Your task to perform on an android device: move a message to another label in the gmail app Image 0: 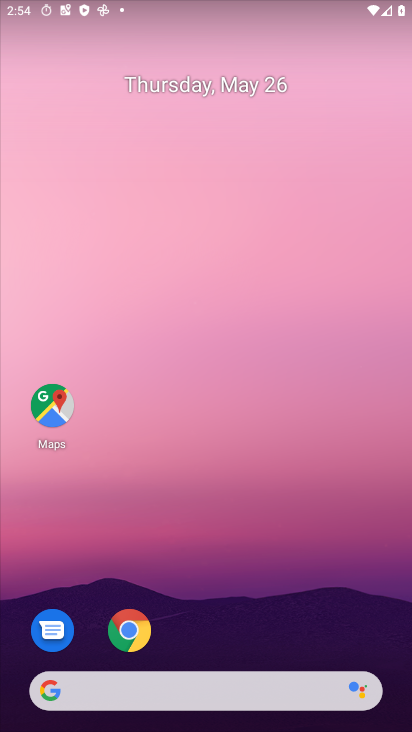
Step 0: drag from (184, 610) to (284, 190)
Your task to perform on an android device: move a message to another label in the gmail app Image 1: 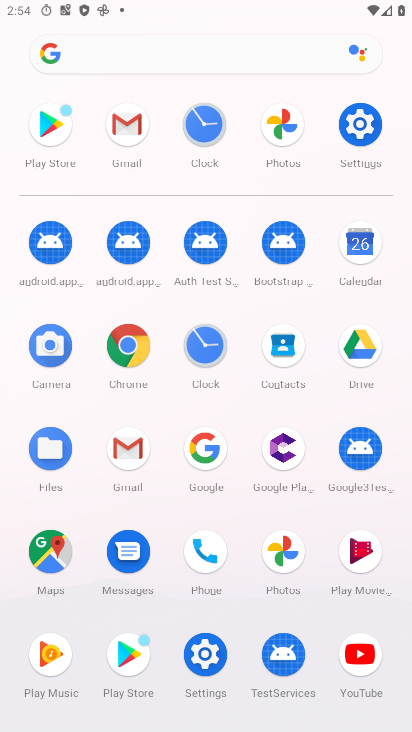
Step 1: click (116, 133)
Your task to perform on an android device: move a message to another label in the gmail app Image 2: 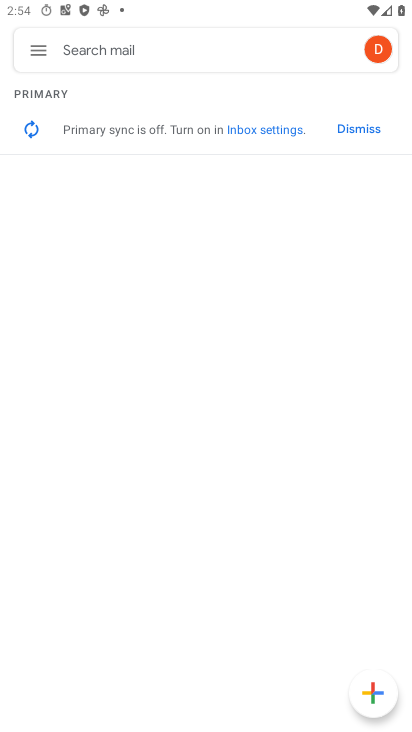
Step 2: click (46, 48)
Your task to perform on an android device: move a message to another label in the gmail app Image 3: 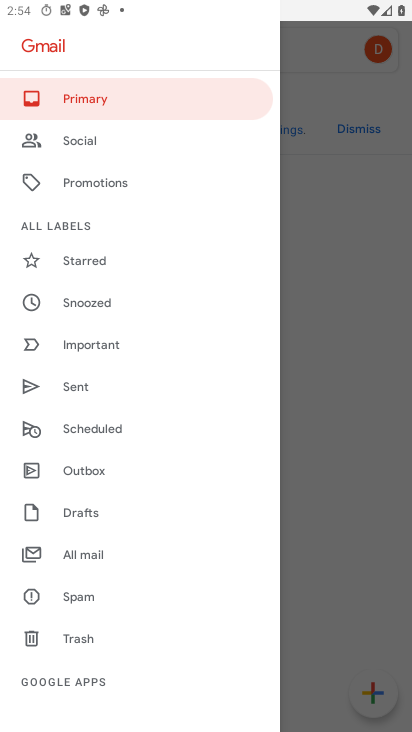
Step 3: click (82, 562)
Your task to perform on an android device: move a message to another label in the gmail app Image 4: 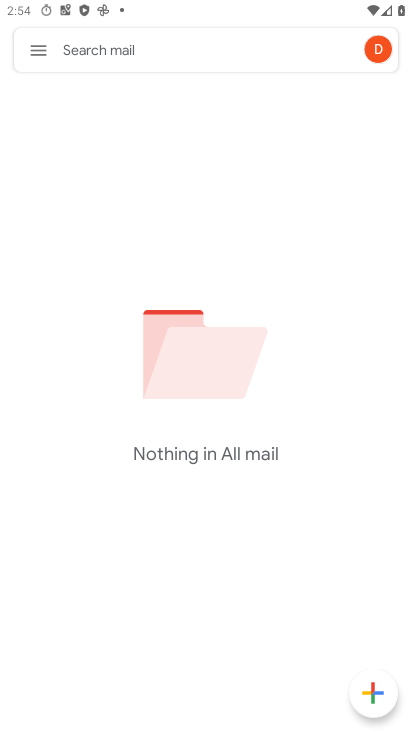
Step 4: click (27, 57)
Your task to perform on an android device: move a message to another label in the gmail app Image 5: 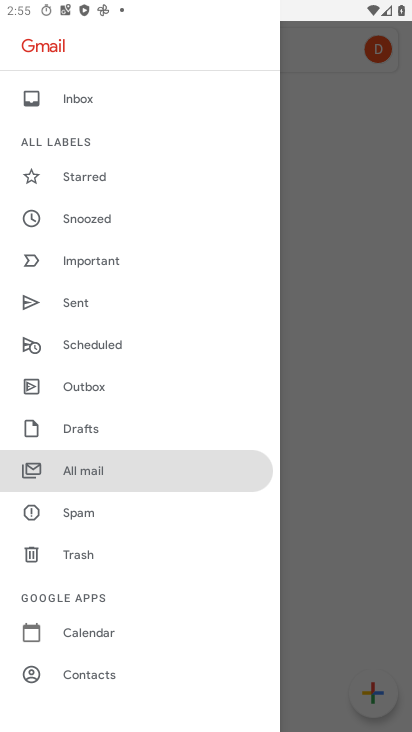
Step 5: drag from (158, 132) to (121, 655)
Your task to perform on an android device: move a message to another label in the gmail app Image 6: 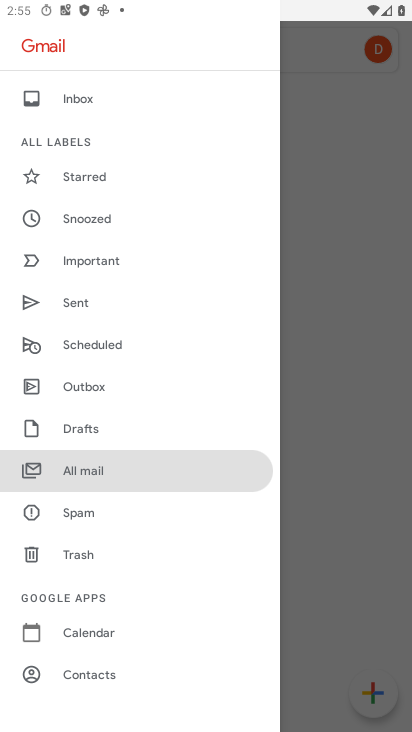
Step 6: click (78, 97)
Your task to perform on an android device: move a message to another label in the gmail app Image 7: 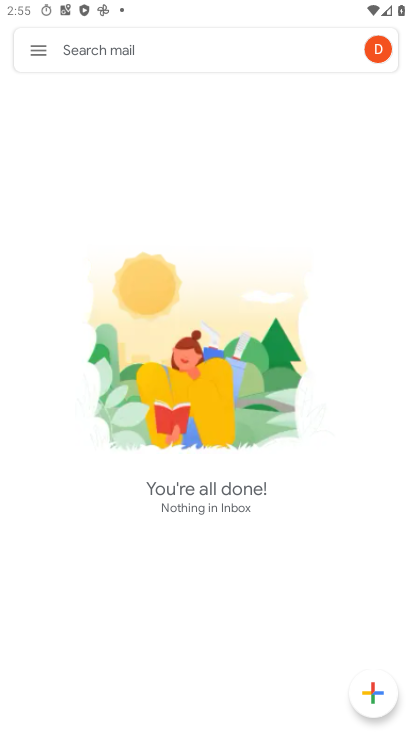
Step 7: click (39, 49)
Your task to perform on an android device: move a message to another label in the gmail app Image 8: 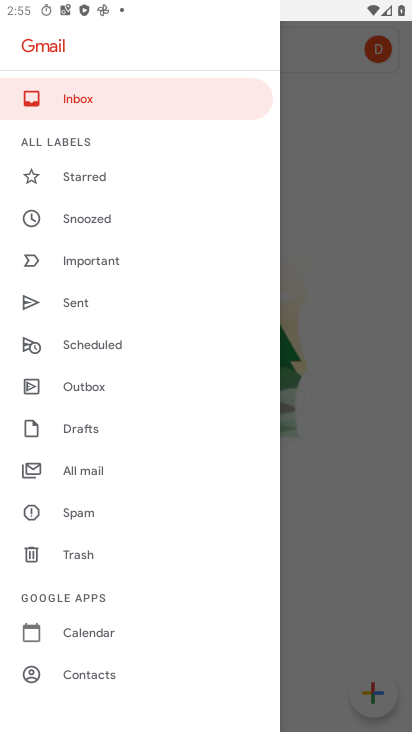
Step 8: drag from (95, 639) to (182, 75)
Your task to perform on an android device: move a message to another label in the gmail app Image 9: 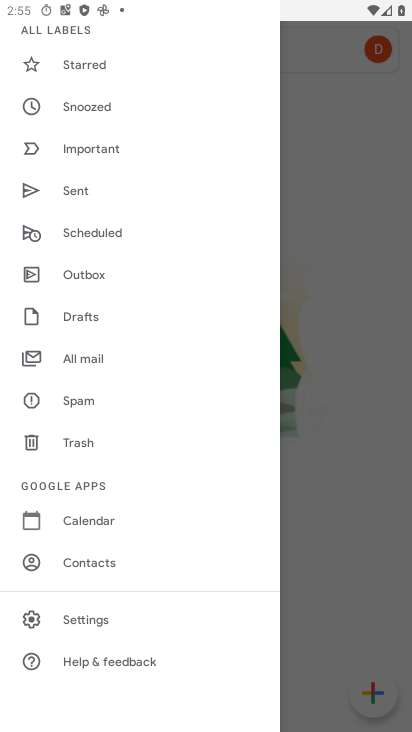
Step 9: drag from (131, 92) to (72, 696)
Your task to perform on an android device: move a message to another label in the gmail app Image 10: 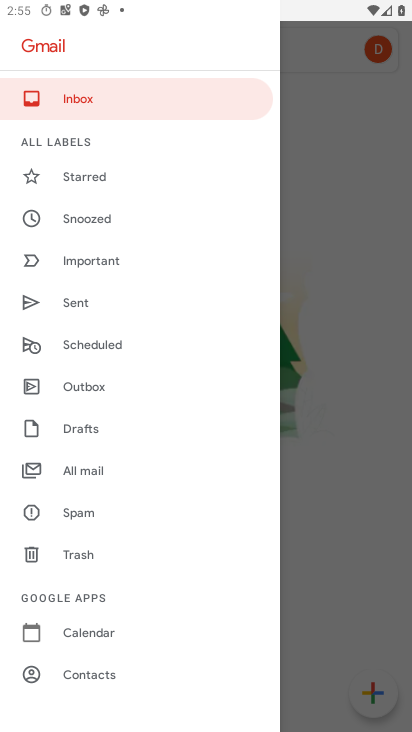
Step 10: drag from (136, 632) to (282, 80)
Your task to perform on an android device: move a message to another label in the gmail app Image 11: 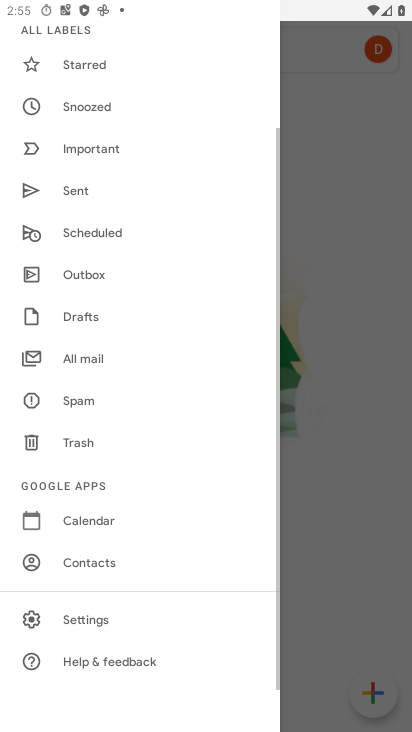
Step 11: click (61, 607)
Your task to perform on an android device: move a message to another label in the gmail app Image 12: 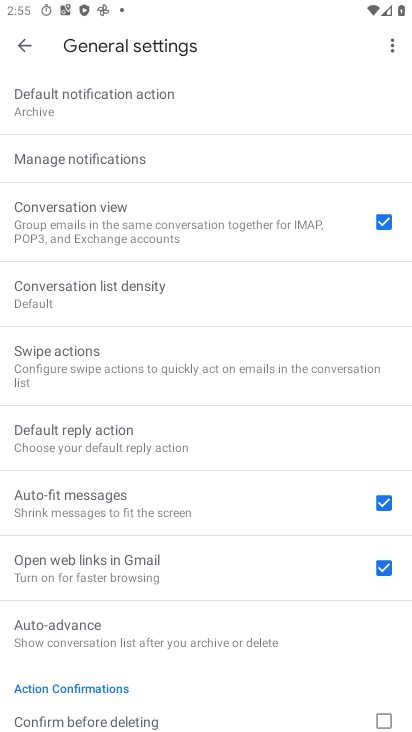
Step 12: task complete